Your task to perform on an android device: open the mobile data screen to see how much data has been used Image 0: 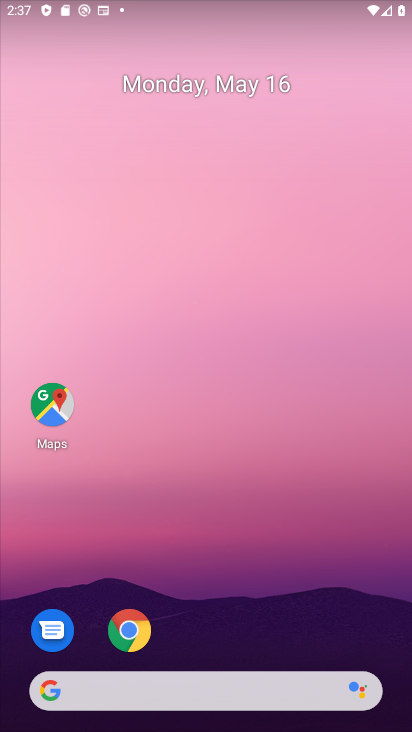
Step 0: drag from (199, 644) to (202, 99)
Your task to perform on an android device: open the mobile data screen to see how much data has been used Image 1: 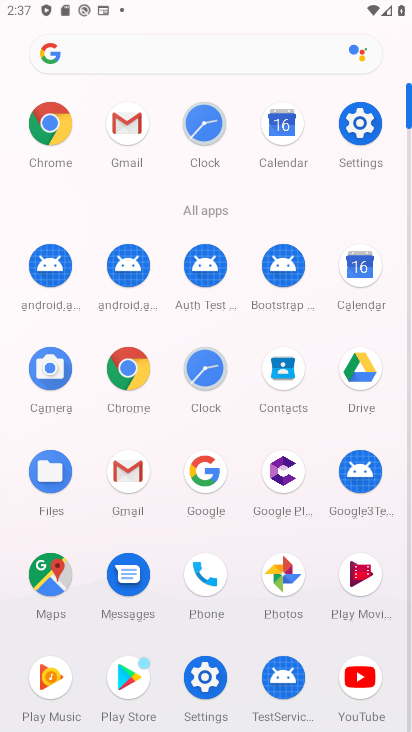
Step 1: click (356, 119)
Your task to perform on an android device: open the mobile data screen to see how much data has been used Image 2: 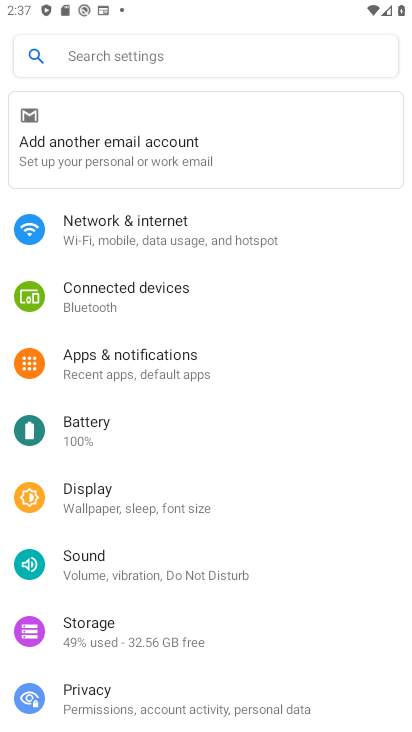
Step 2: click (144, 228)
Your task to perform on an android device: open the mobile data screen to see how much data has been used Image 3: 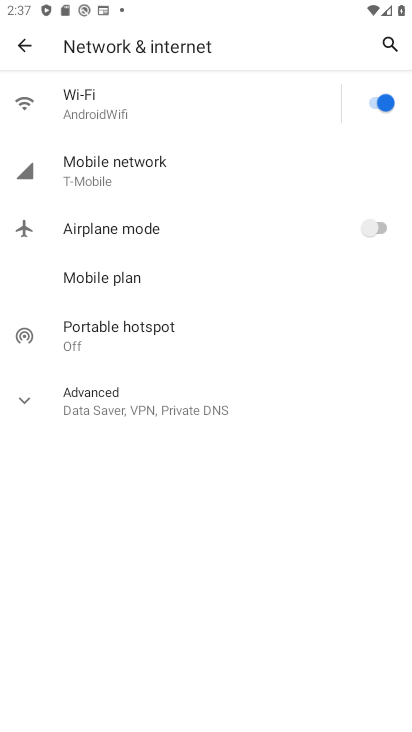
Step 3: click (129, 162)
Your task to perform on an android device: open the mobile data screen to see how much data has been used Image 4: 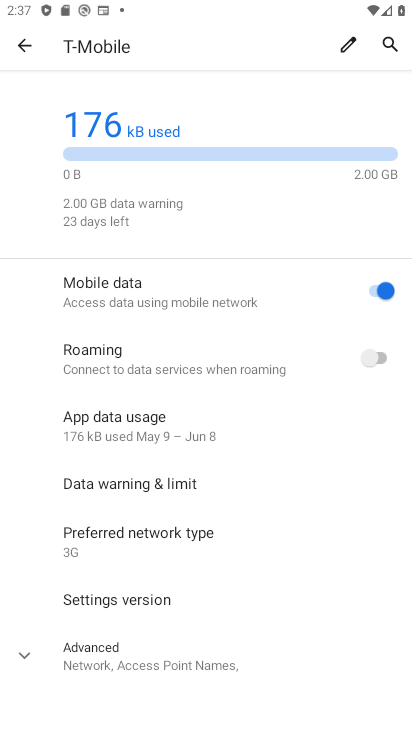
Step 4: click (177, 423)
Your task to perform on an android device: open the mobile data screen to see how much data has been used Image 5: 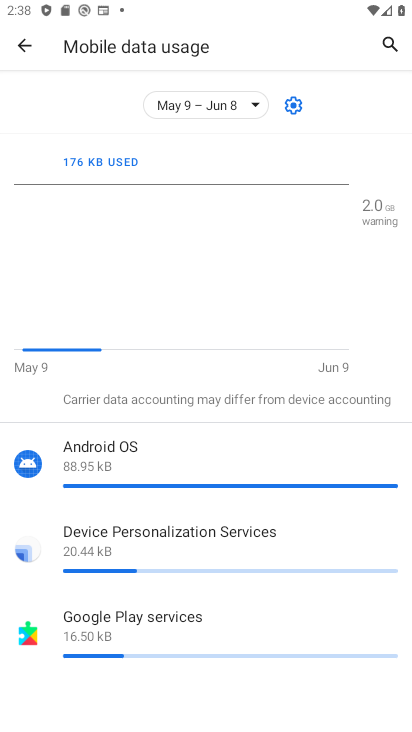
Step 5: task complete